Your task to perform on an android device: turn on javascript in the chrome app Image 0: 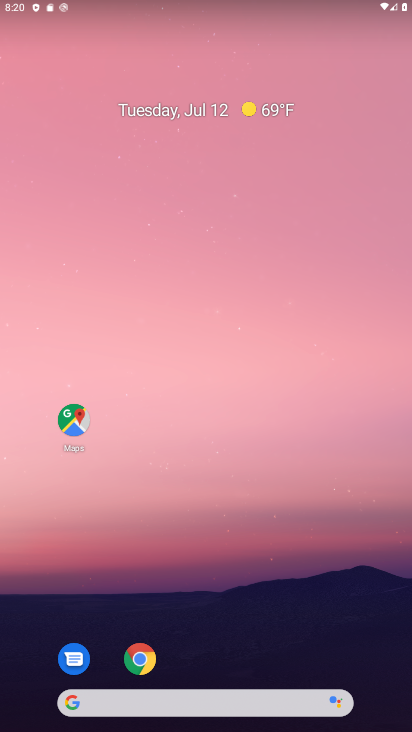
Step 0: click (141, 661)
Your task to perform on an android device: turn on javascript in the chrome app Image 1: 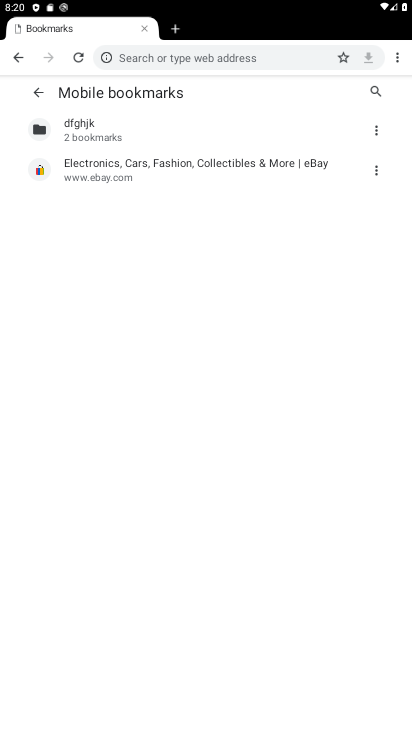
Step 1: click (397, 62)
Your task to perform on an android device: turn on javascript in the chrome app Image 2: 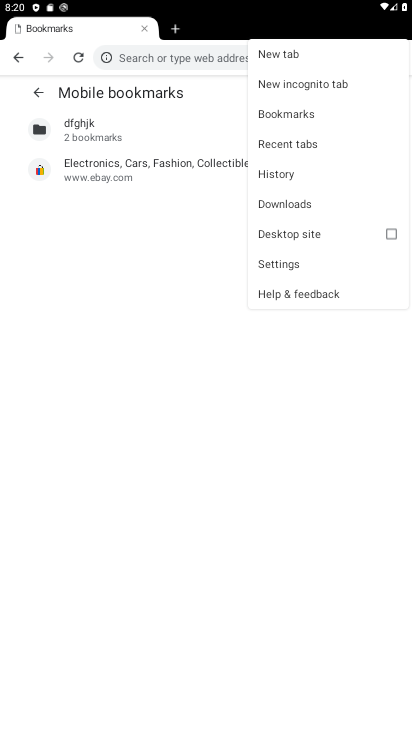
Step 2: click (278, 264)
Your task to perform on an android device: turn on javascript in the chrome app Image 3: 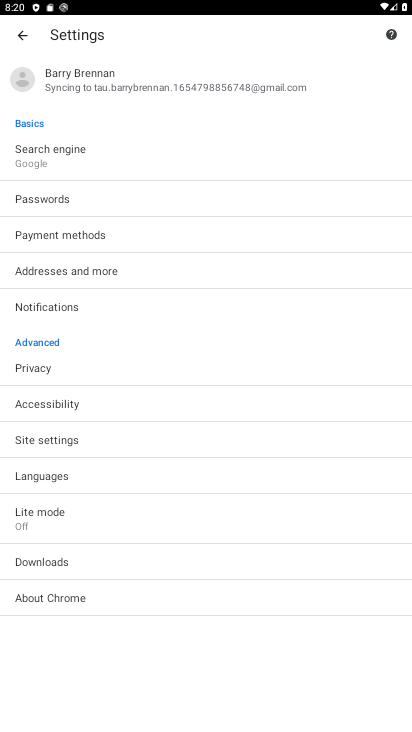
Step 3: click (51, 442)
Your task to perform on an android device: turn on javascript in the chrome app Image 4: 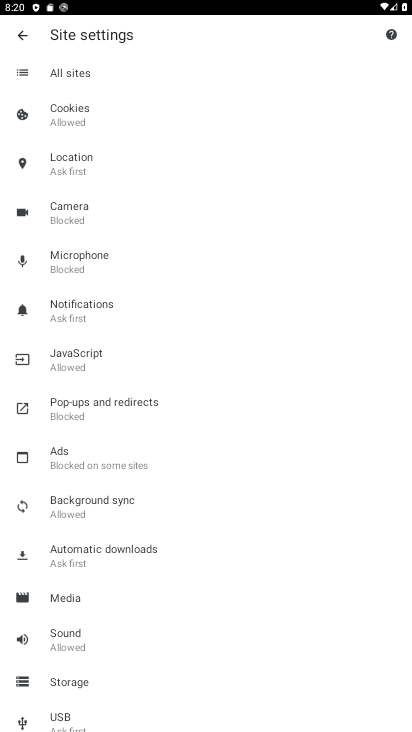
Step 4: click (76, 350)
Your task to perform on an android device: turn on javascript in the chrome app Image 5: 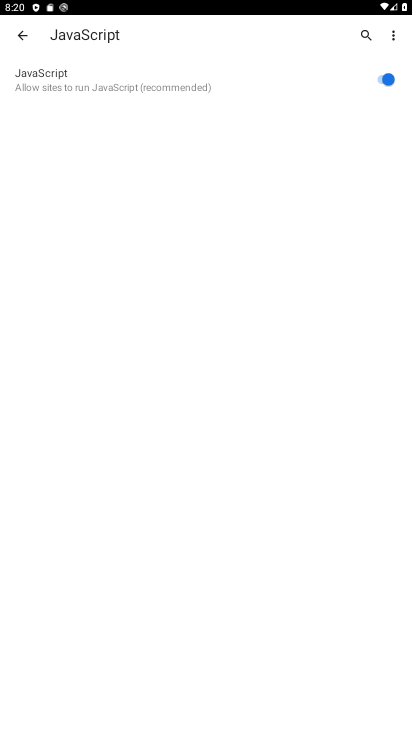
Step 5: task complete